Your task to perform on an android device: Go to Android settings Image 0: 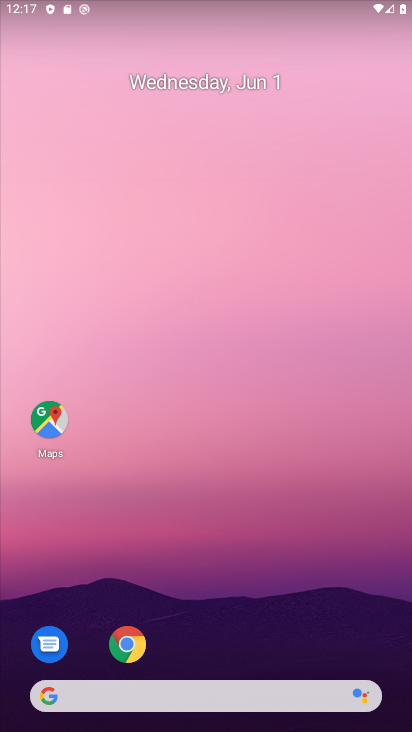
Step 0: press home button
Your task to perform on an android device: Go to Android settings Image 1: 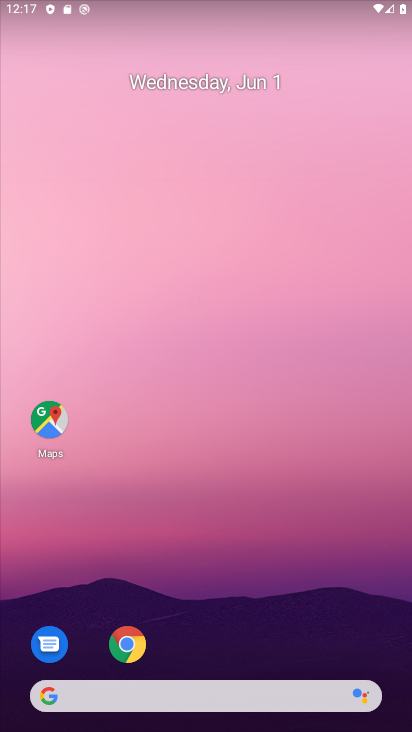
Step 1: drag from (276, 626) to (286, 108)
Your task to perform on an android device: Go to Android settings Image 2: 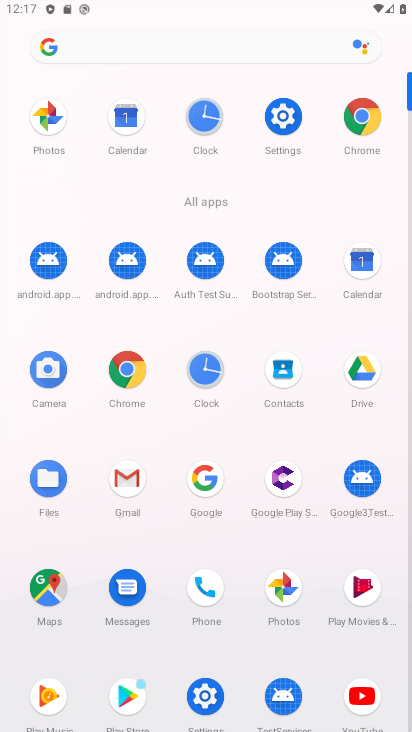
Step 2: click (206, 698)
Your task to perform on an android device: Go to Android settings Image 3: 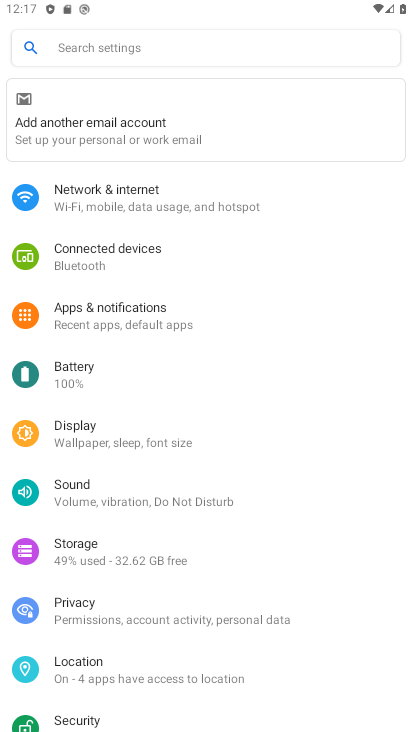
Step 3: drag from (234, 612) to (241, 176)
Your task to perform on an android device: Go to Android settings Image 4: 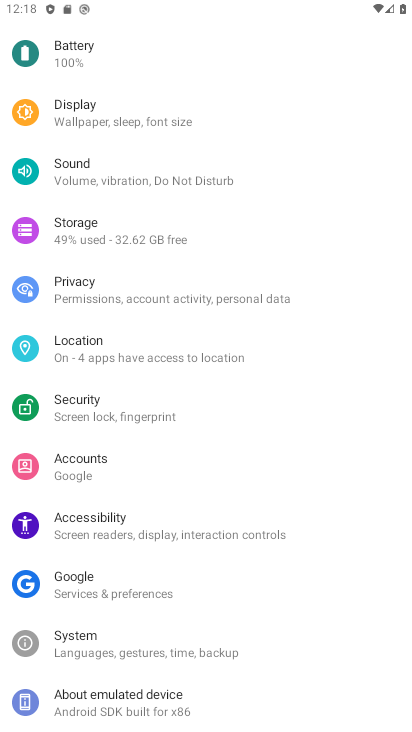
Step 4: click (99, 701)
Your task to perform on an android device: Go to Android settings Image 5: 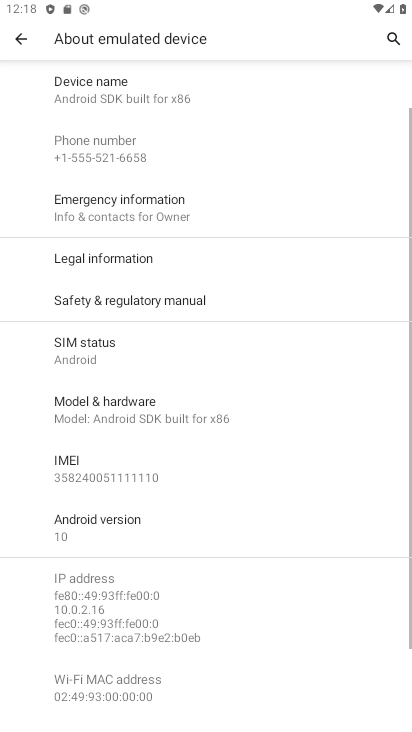
Step 5: click (114, 515)
Your task to perform on an android device: Go to Android settings Image 6: 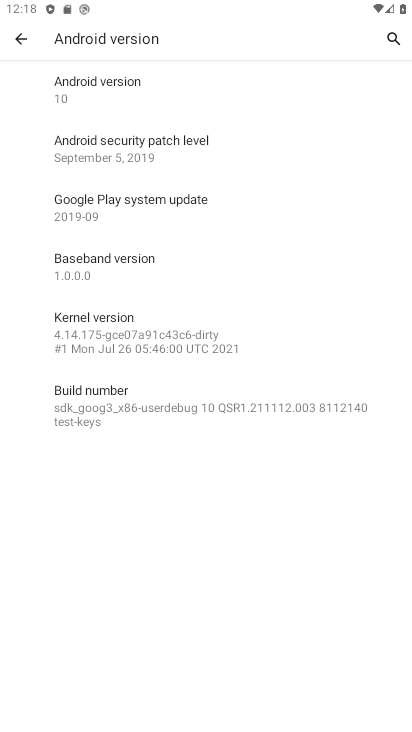
Step 6: task complete